Your task to perform on an android device: Go to CNN.com Image 0: 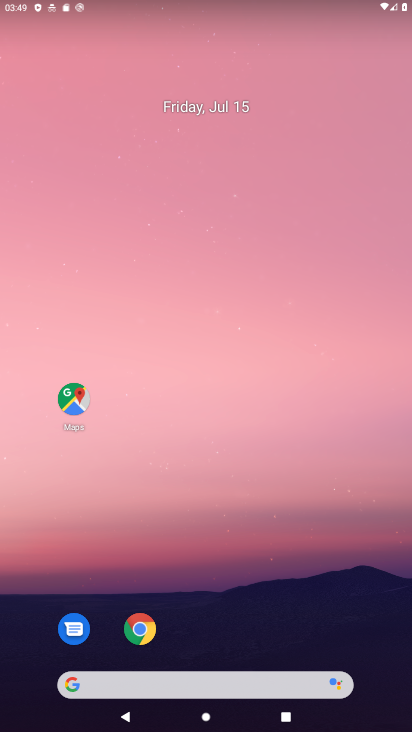
Step 0: drag from (212, 602) to (132, 25)
Your task to perform on an android device: Go to CNN.com Image 1: 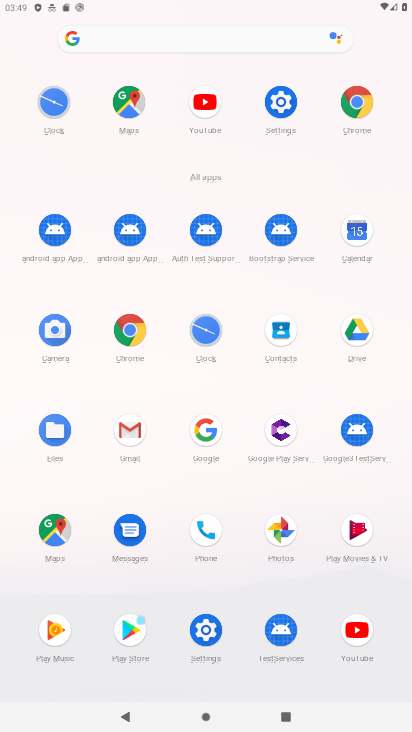
Step 1: click (117, 324)
Your task to perform on an android device: Go to CNN.com Image 2: 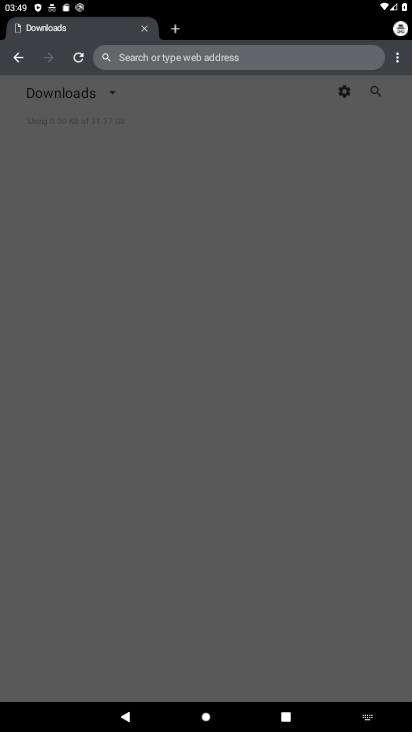
Step 2: drag from (398, 47) to (278, 55)
Your task to perform on an android device: Go to CNN.com Image 3: 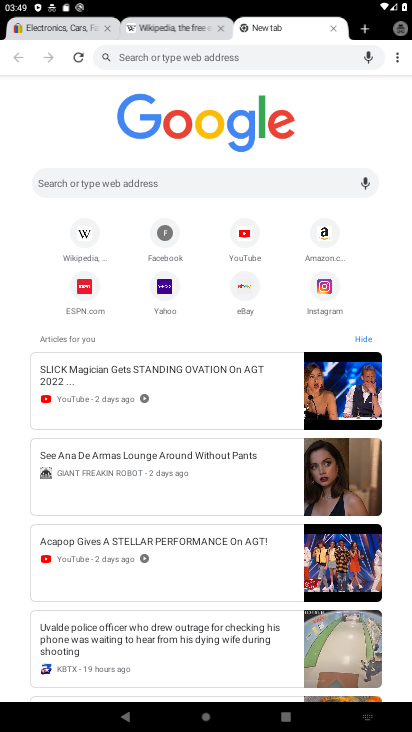
Step 3: click (126, 39)
Your task to perform on an android device: Go to CNN.com Image 4: 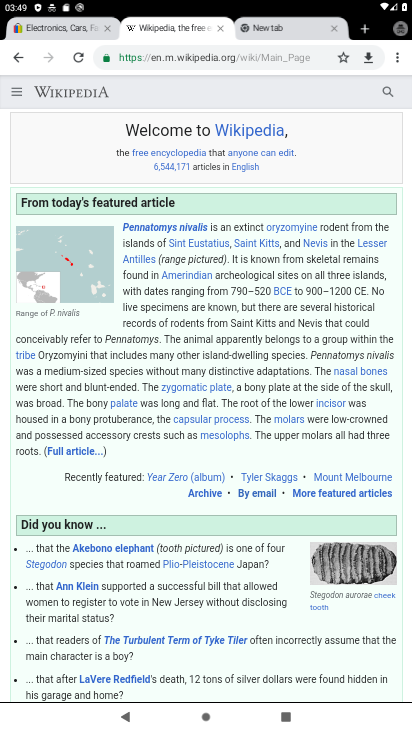
Step 4: click (147, 59)
Your task to perform on an android device: Go to CNN.com Image 5: 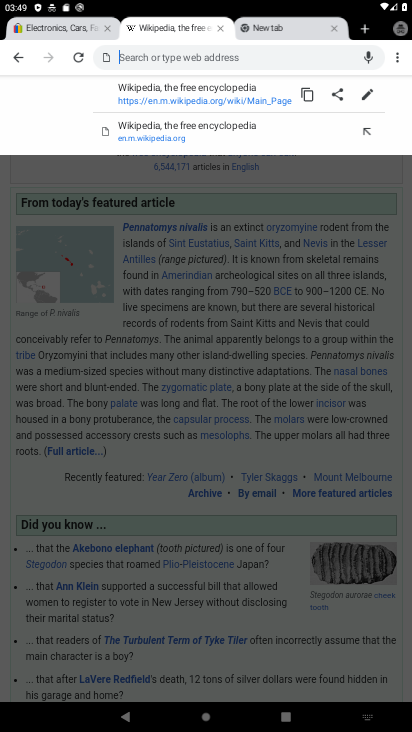
Step 5: click (248, 719)
Your task to perform on an android device: Go to CNN.com Image 6: 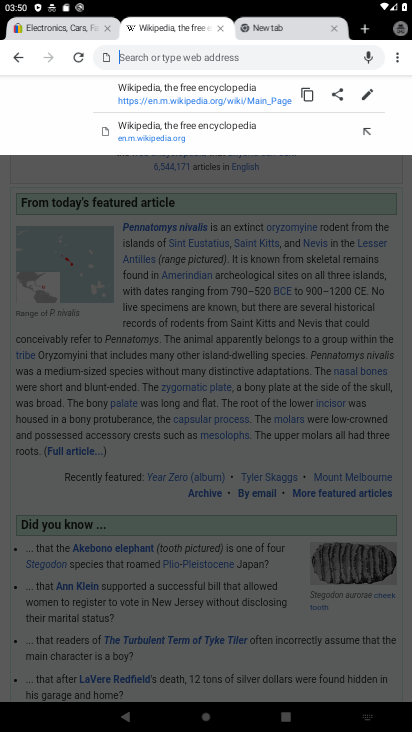
Step 6: type "CNN.com"
Your task to perform on an android device: Go to CNN.com Image 7: 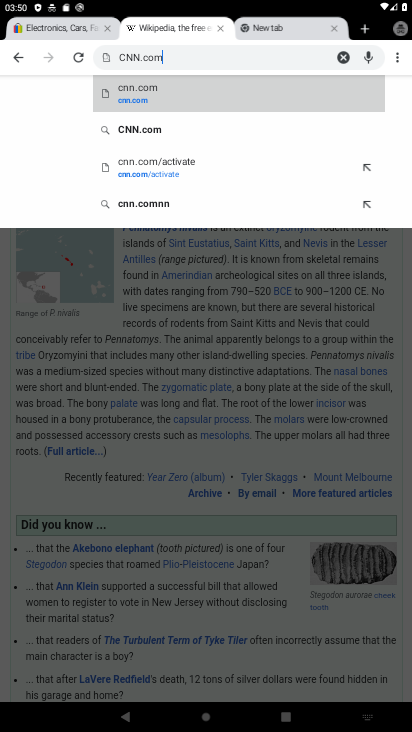
Step 7: type ""
Your task to perform on an android device: Go to CNN.com Image 8: 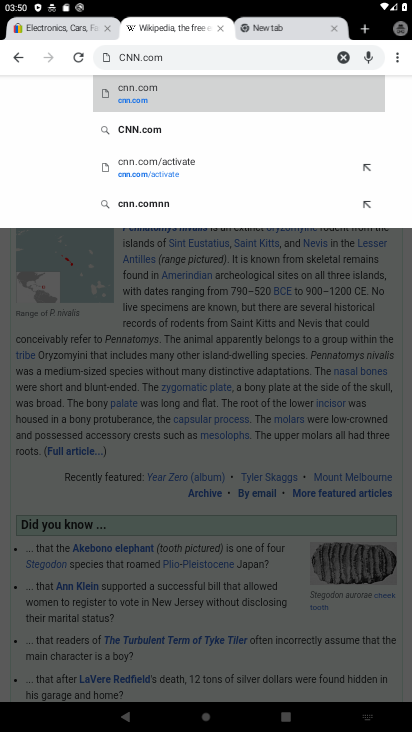
Step 8: click (128, 94)
Your task to perform on an android device: Go to CNN.com Image 9: 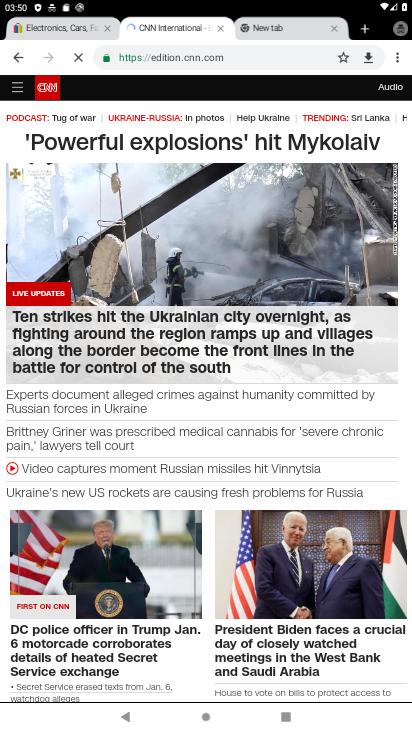
Step 9: task complete